Your task to perform on an android device: Go to display settings Image 0: 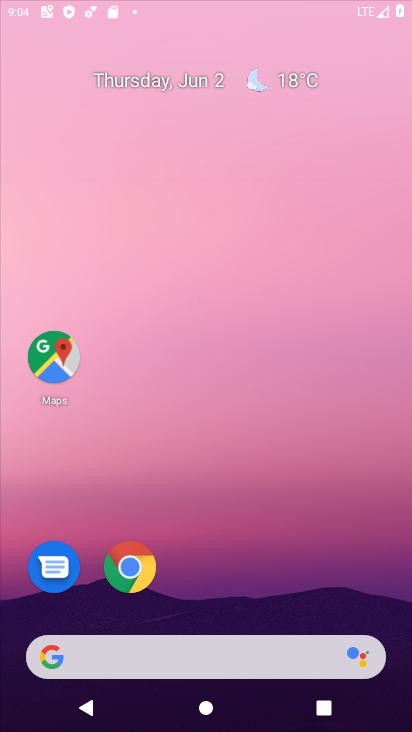
Step 0: press home button
Your task to perform on an android device: Go to display settings Image 1: 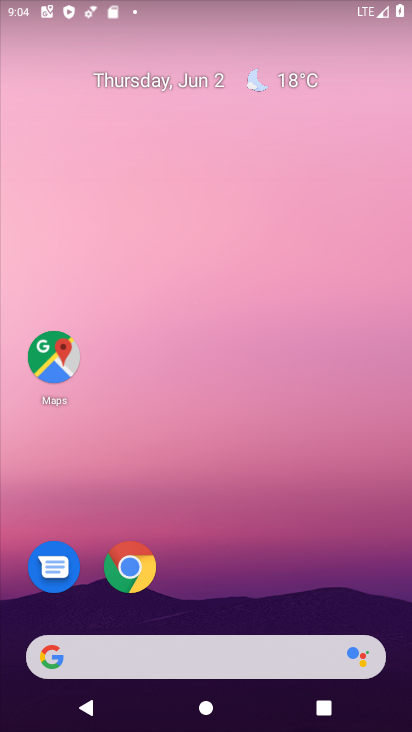
Step 1: drag from (194, 617) to (247, 165)
Your task to perform on an android device: Go to display settings Image 2: 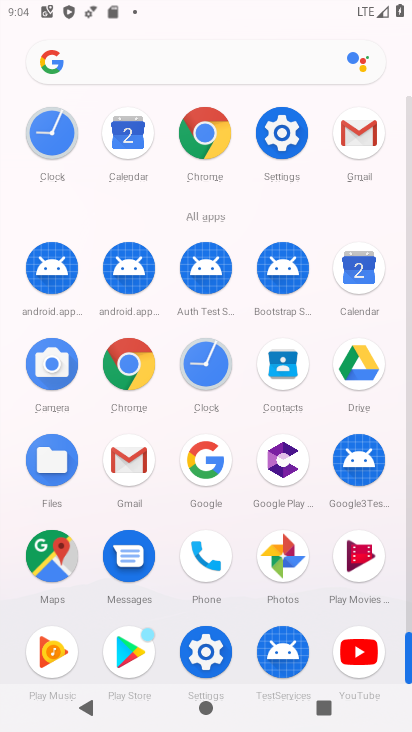
Step 2: click (277, 123)
Your task to perform on an android device: Go to display settings Image 3: 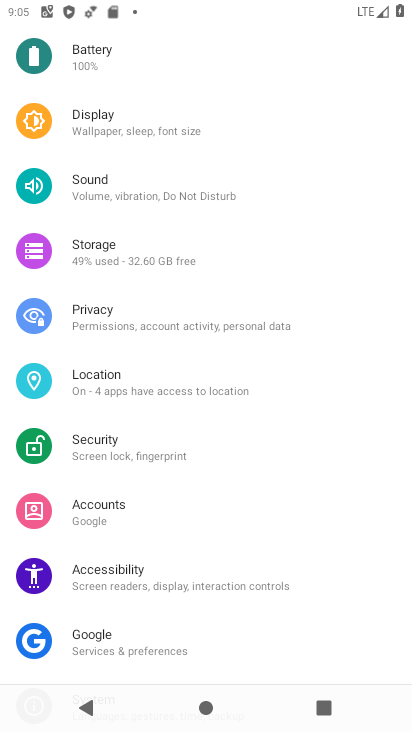
Step 3: click (127, 108)
Your task to perform on an android device: Go to display settings Image 4: 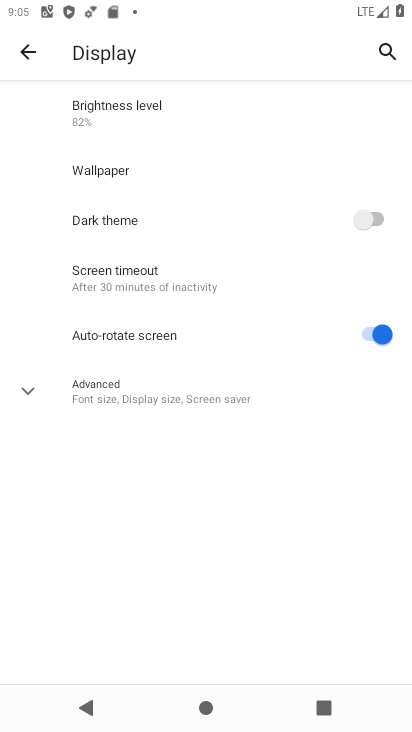
Step 4: click (24, 382)
Your task to perform on an android device: Go to display settings Image 5: 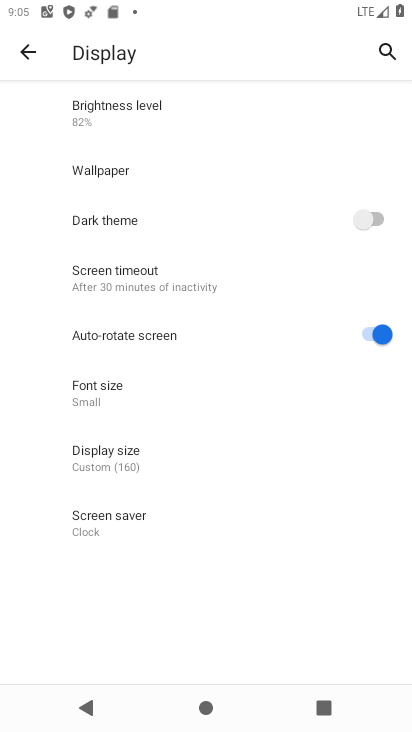
Step 5: task complete